Your task to perform on an android device: toggle priority inbox in the gmail app Image 0: 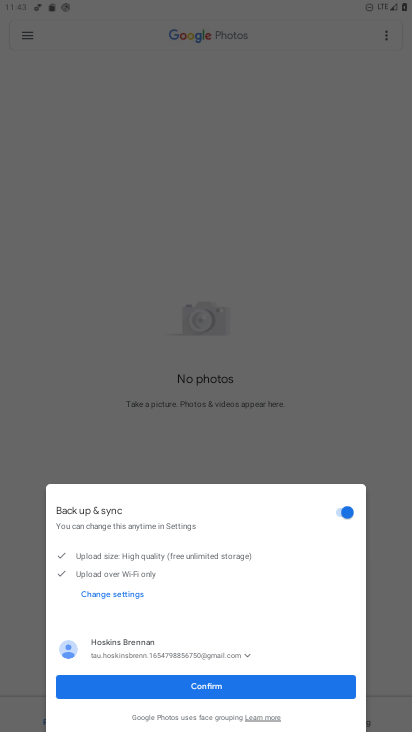
Step 0: press home button
Your task to perform on an android device: toggle priority inbox in the gmail app Image 1: 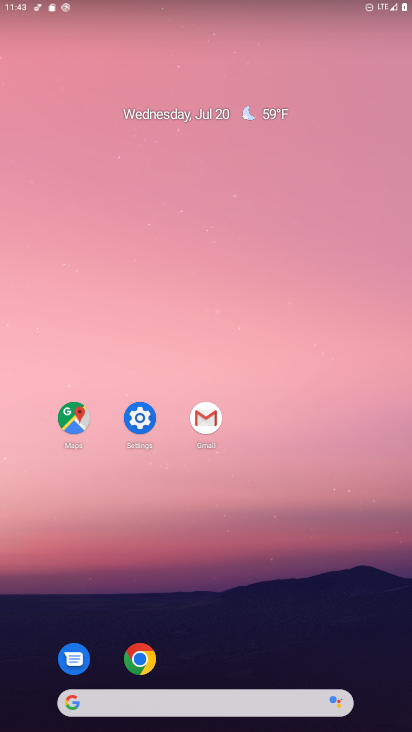
Step 1: click (199, 413)
Your task to perform on an android device: toggle priority inbox in the gmail app Image 2: 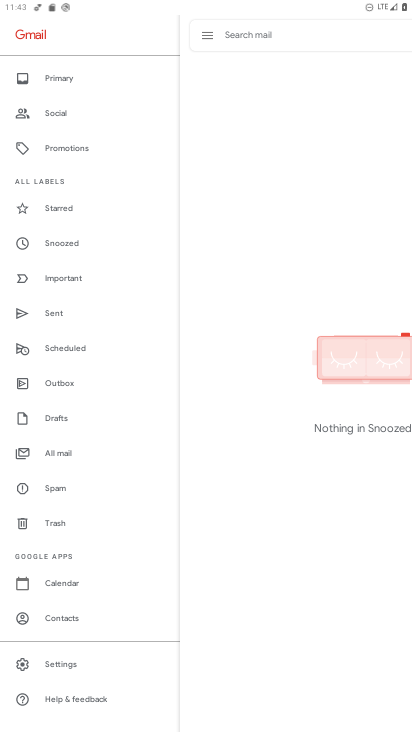
Step 2: click (54, 658)
Your task to perform on an android device: toggle priority inbox in the gmail app Image 3: 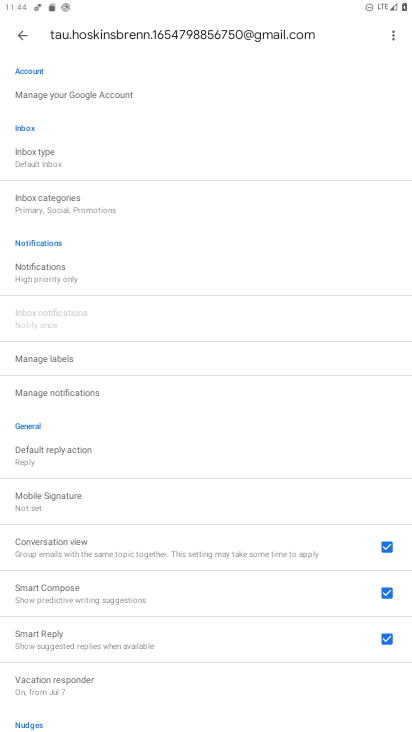
Step 3: click (49, 159)
Your task to perform on an android device: toggle priority inbox in the gmail app Image 4: 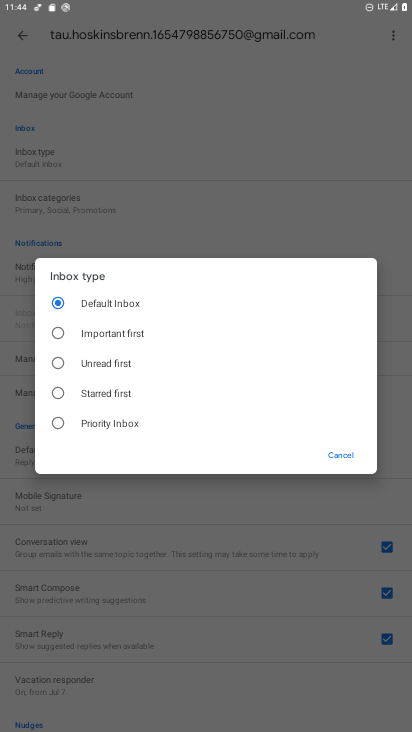
Step 4: click (103, 419)
Your task to perform on an android device: toggle priority inbox in the gmail app Image 5: 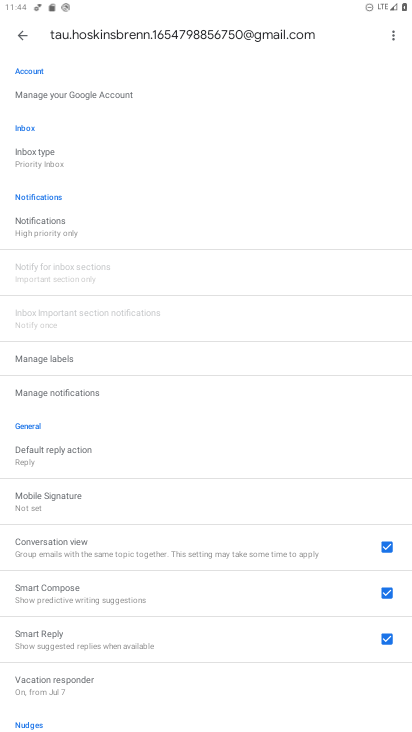
Step 5: task complete